Your task to perform on an android device: Open Amazon Image 0: 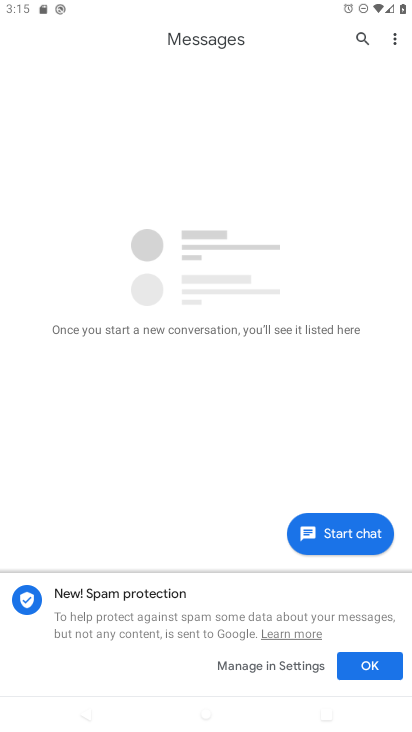
Step 0: press home button
Your task to perform on an android device: Open Amazon Image 1: 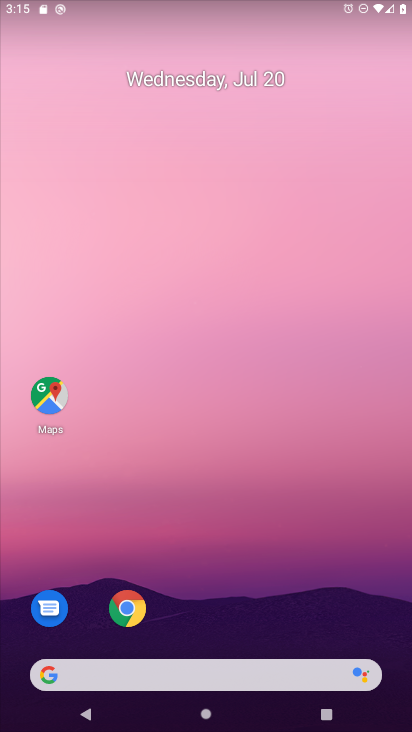
Step 1: click (140, 612)
Your task to perform on an android device: Open Amazon Image 2: 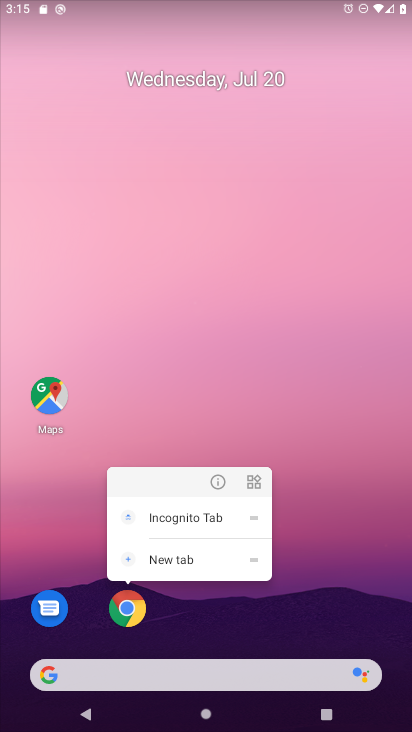
Step 2: click (140, 612)
Your task to perform on an android device: Open Amazon Image 3: 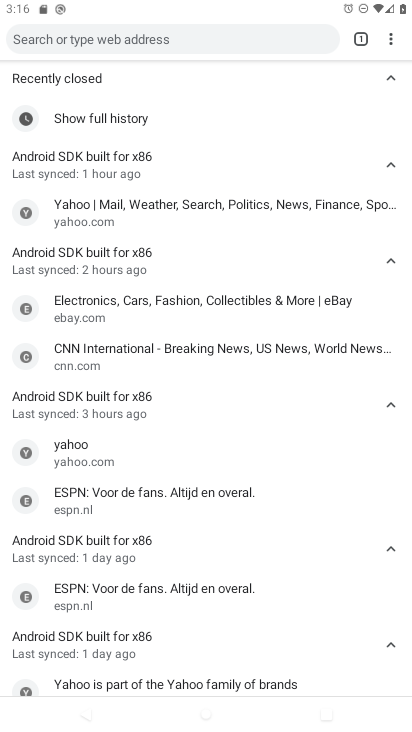
Step 3: click (392, 39)
Your task to perform on an android device: Open Amazon Image 4: 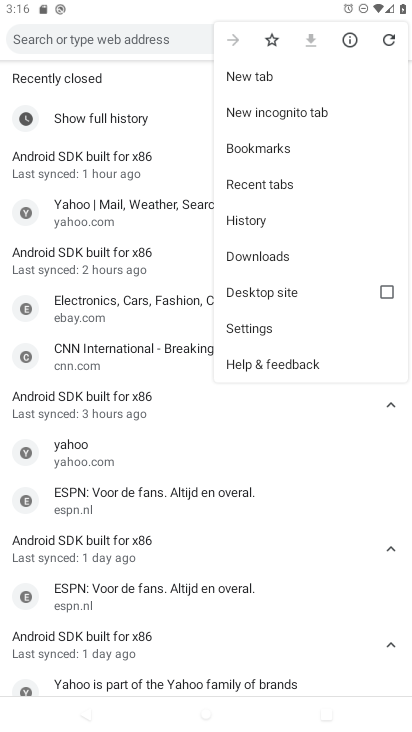
Step 4: click (305, 81)
Your task to perform on an android device: Open Amazon Image 5: 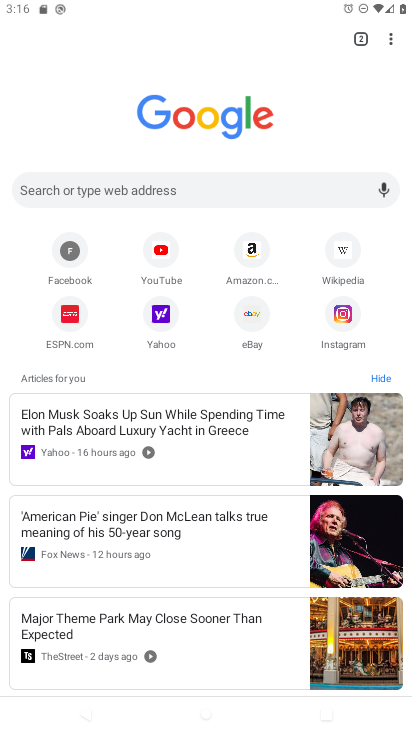
Step 5: click (251, 254)
Your task to perform on an android device: Open Amazon Image 6: 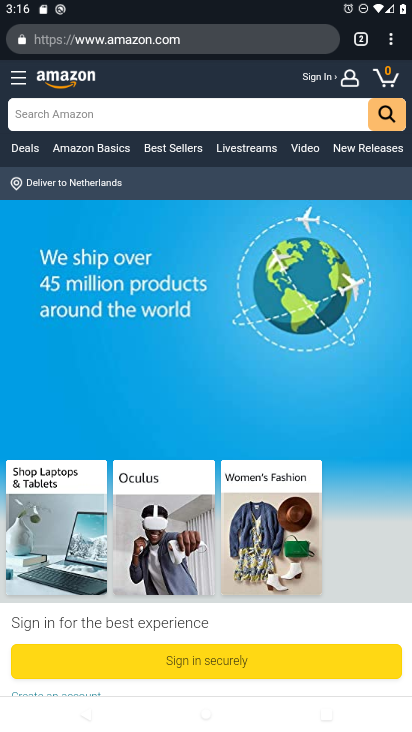
Step 6: task complete